Your task to perform on an android device: Open the map Image 0: 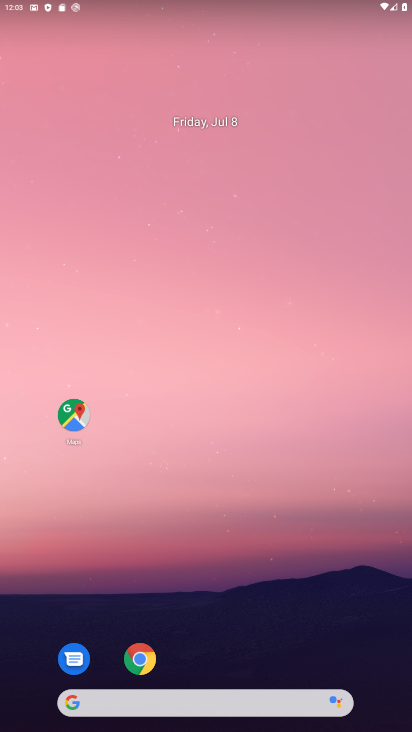
Step 0: drag from (229, 626) to (227, 117)
Your task to perform on an android device: Open the map Image 1: 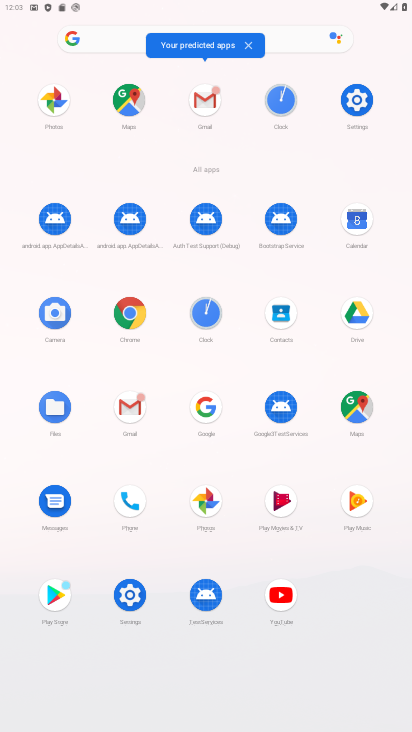
Step 1: click (362, 419)
Your task to perform on an android device: Open the map Image 2: 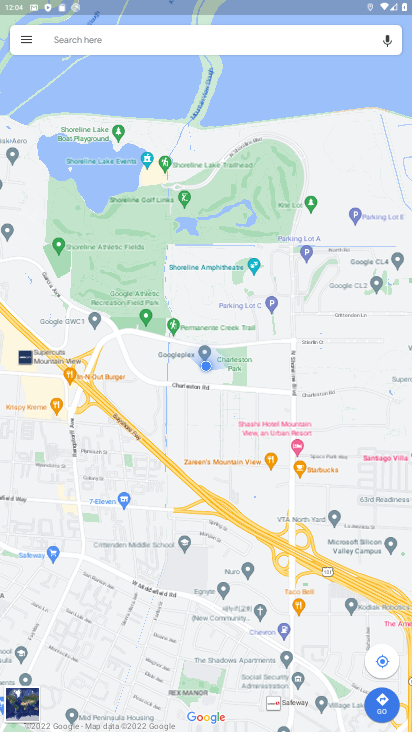
Step 2: task complete